Your task to perform on an android device: Open Google Chrome and open the bookmarks view Image 0: 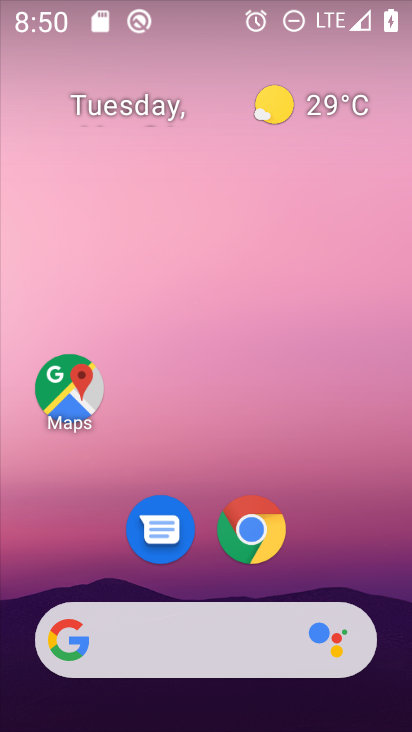
Step 0: drag from (384, 615) to (312, 7)
Your task to perform on an android device: Open Google Chrome and open the bookmarks view Image 1: 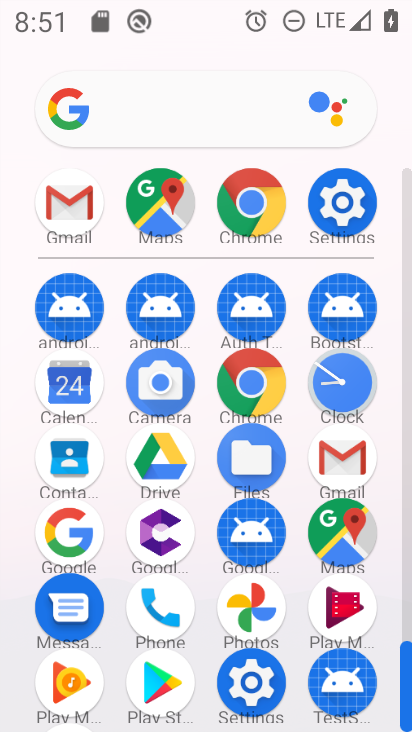
Step 1: click (266, 213)
Your task to perform on an android device: Open Google Chrome and open the bookmarks view Image 2: 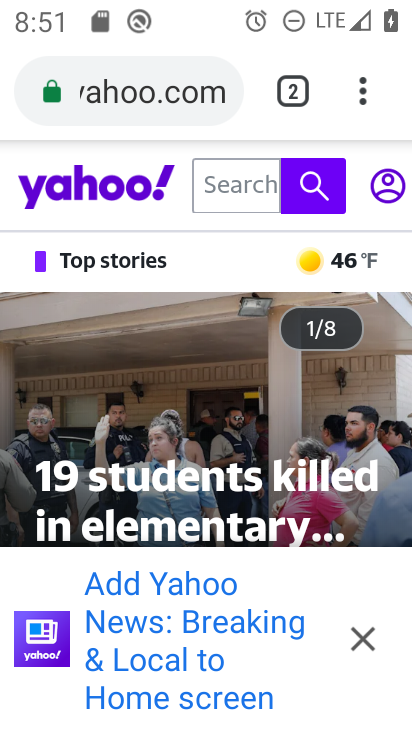
Step 2: press back button
Your task to perform on an android device: Open Google Chrome and open the bookmarks view Image 3: 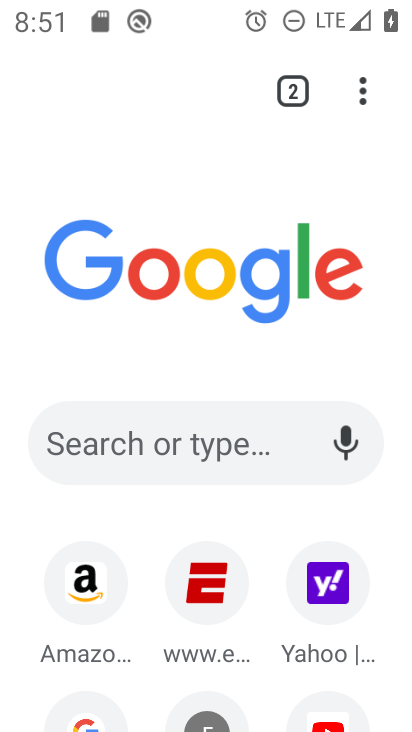
Step 3: click (368, 92)
Your task to perform on an android device: Open Google Chrome and open the bookmarks view Image 4: 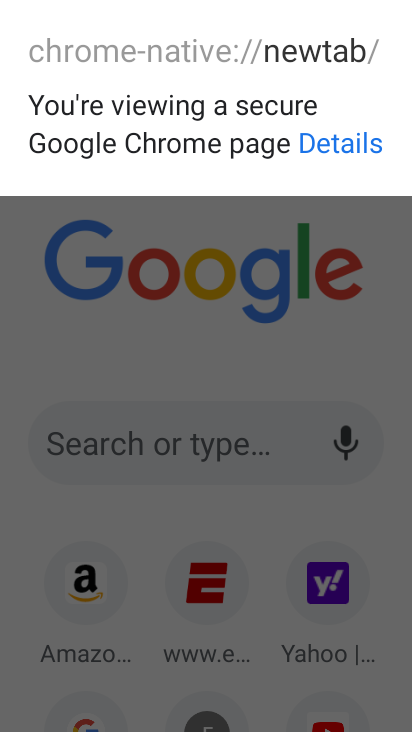
Step 4: press back button
Your task to perform on an android device: Open Google Chrome and open the bookmarks view Image 5: 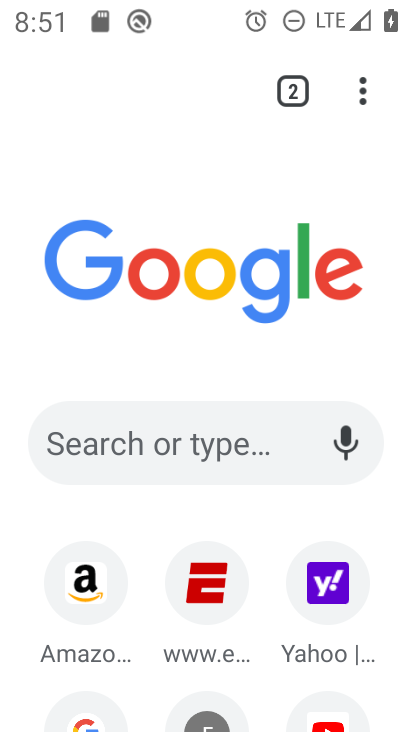
Step 5: click (367, 81)
Your task to perform on an android device: Open Google Chrome and open the bookmarks view Image 6: 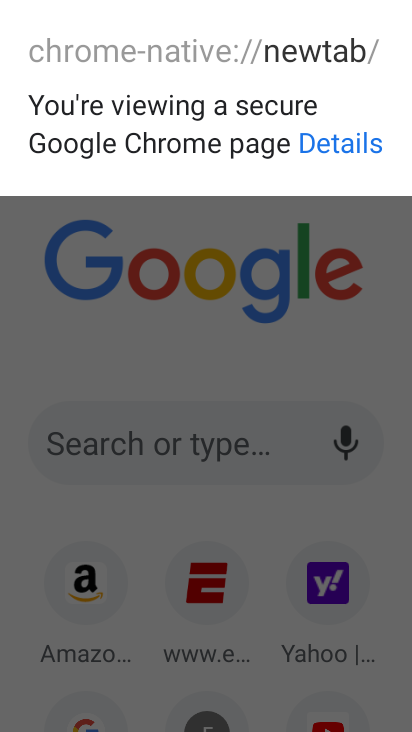
Step 6: press back button
Your task to perform on an android device: Open Google Chrome and open the bookmarks view Image 7: 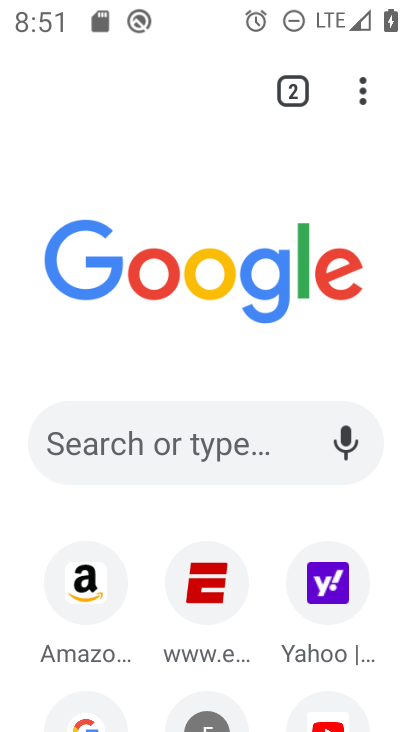
Step 7: click (361, 80)
Your task to perform on an android device: Open Google Chrome and open the bookmarks view Image 8: 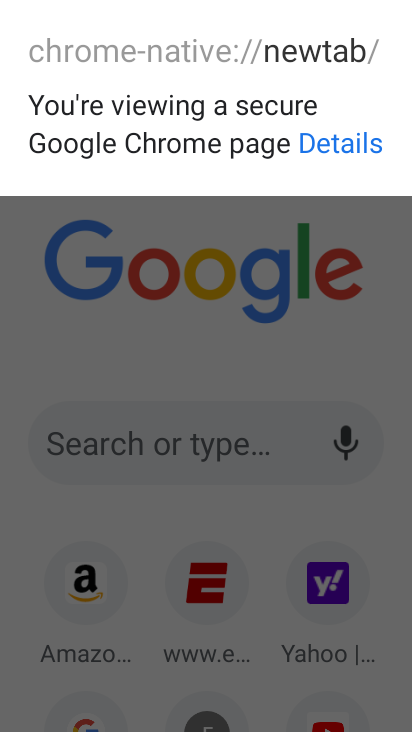
Step 8: press back button
Your task to perform on an android device: Open Google Chrome and open the bookmarks view Image 9: 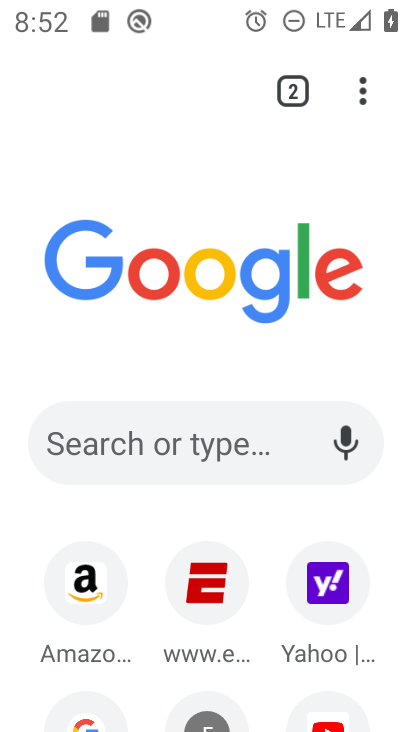
Step 9: click (359, 89)
Your task to perform on an android device: Open Google Chrome and open the bookmarks view Image 10: 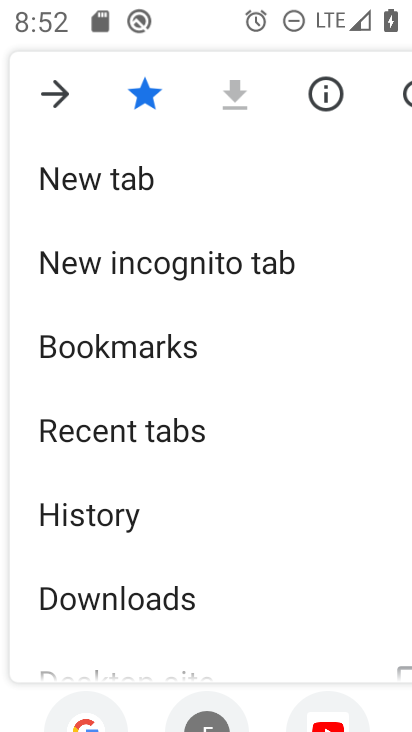
Step 10: click (180, 373)
Your task to perform on an android device: Open Google Chrome and open the bookmarks view Image 11: 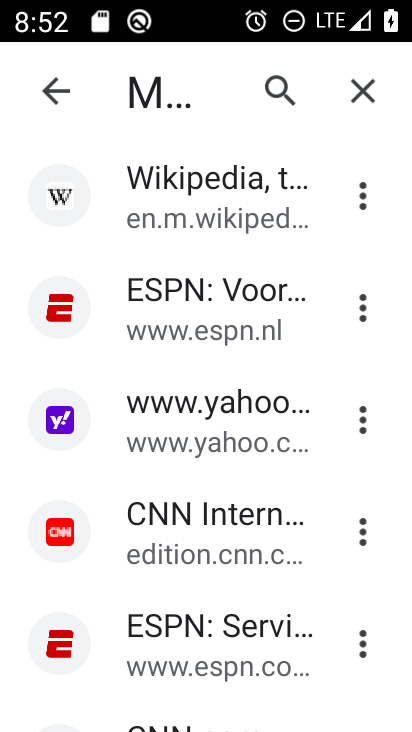
Step 11: task complete